Your task to perform on an android device: change notifications settings Image 0: 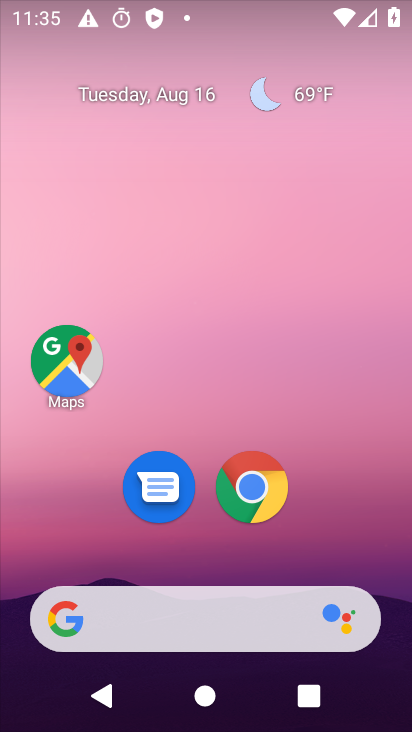
Step 0: drag from (348, 499) to (285, 96)
Your task to perform on an android device: change notifications settings Image 1: 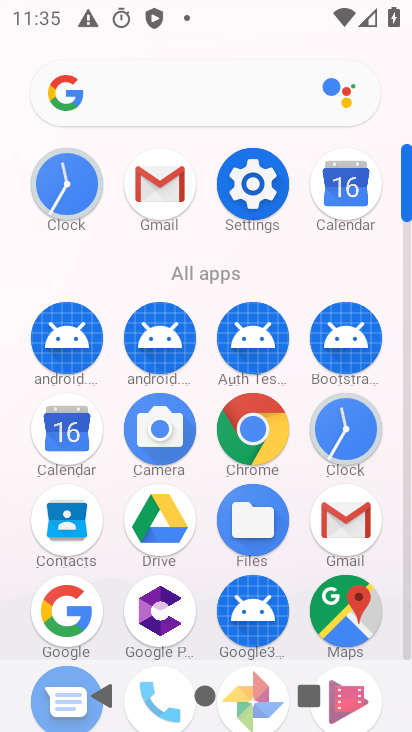
Step 1: click (255, 201)
Your task to perform on an android device: change notifications settings Image 2: 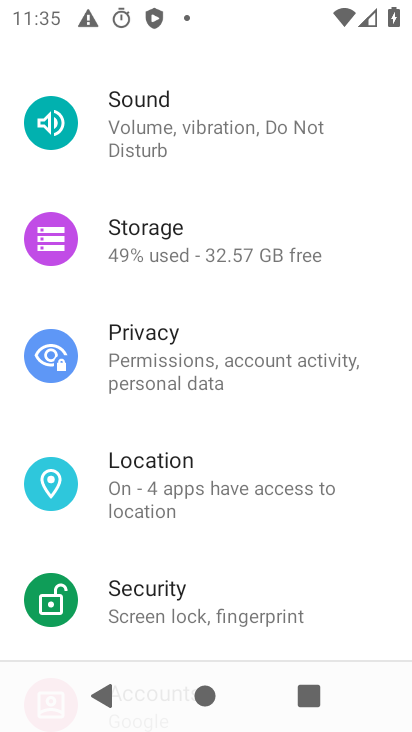
Step 2: drag from (264, 241) to (308, 697)
Your task to perform on an android device: change notifications settings Image 3: 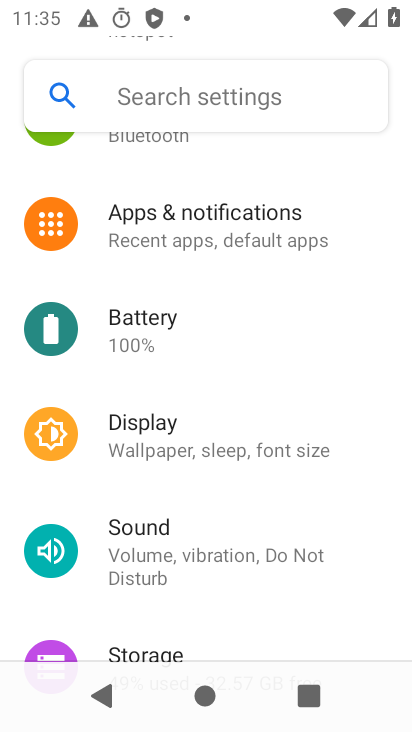
Step 3: click (187, 238)
Your task to perform on an android device: change notifications settings Image 4: 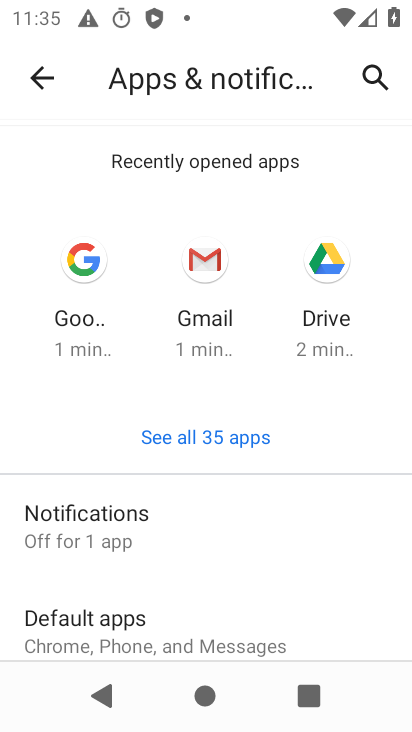
Step 4: click (104, 526)
Your task to perform on an android device: change notifications settings Image 5: 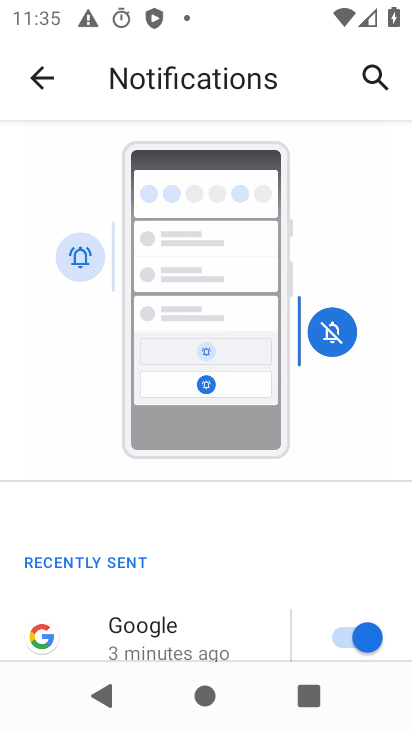
Step 5: task complete